Your task to perform on an android device: What's the weather going to be tomorrow? Image 0: 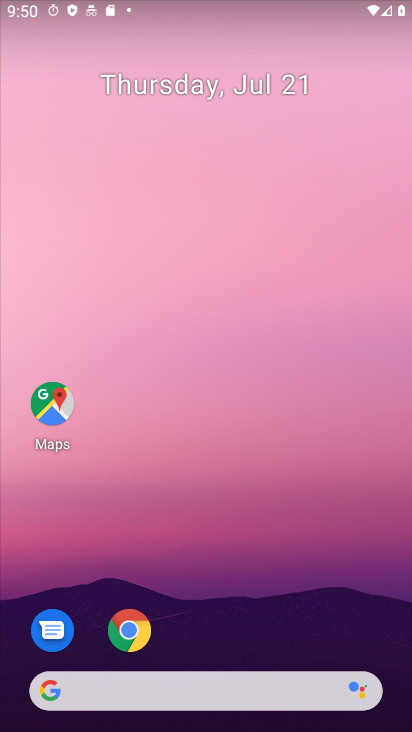
Step 0: drag from (265, 640) to (231, 257)
Your task to perform on an android device: What's the weather going to be tomorrow? Image 1: 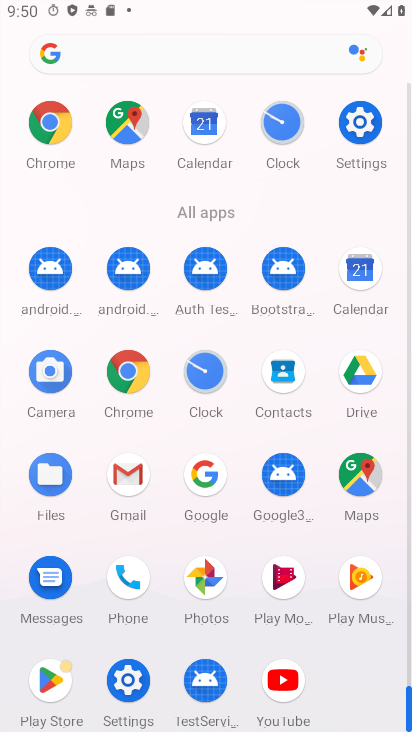
Step 1: task complete